Your task to perform on an android device: allow cookies in the chrome app Image 0: 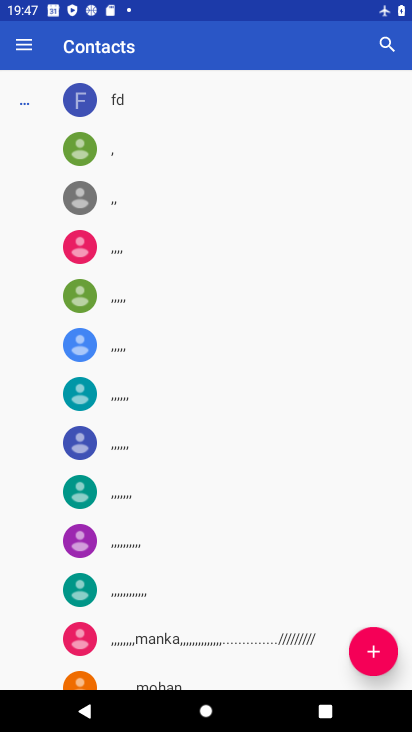
Step 0: press home button
Your task to perform on an android device: allow cookies in the chrome app Image 1: 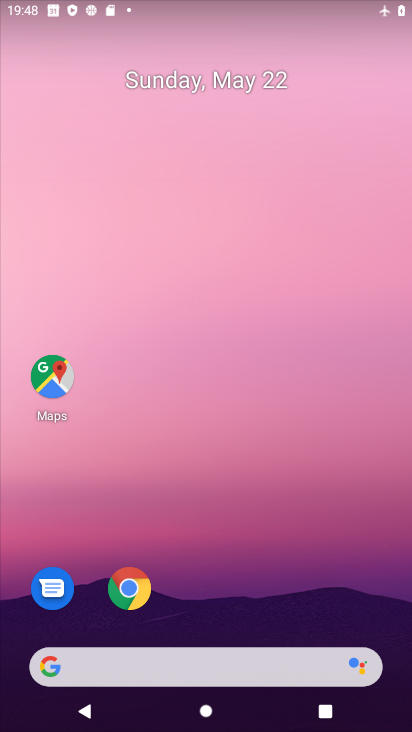
Step 1: click (133, 597)
Your task to perform on an android device: allow cookies in the chrome app Image 2: 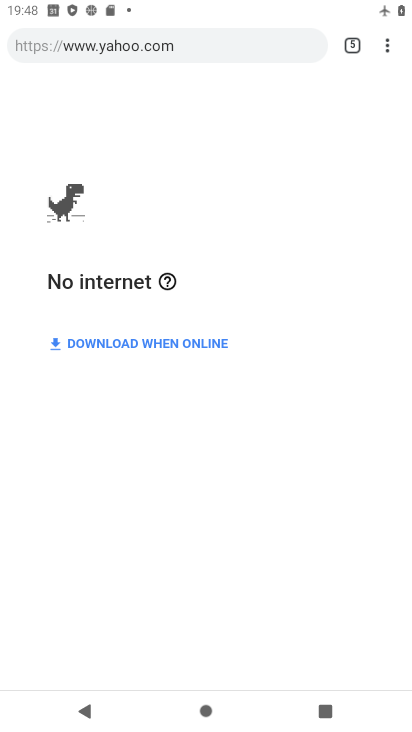
Step 2: click (387, 52)
Your task to perform on an android device: allow cookies in the chrome app Image 3: 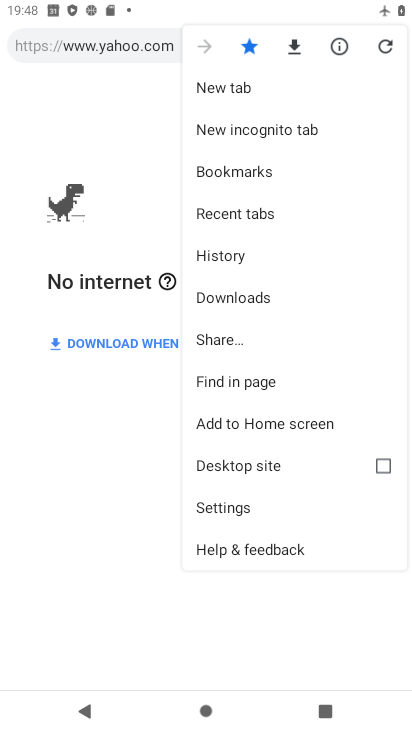
Step 3: click (218, 498)
Your task to perform on an android device: allow cookies in the chrome app Image 4: 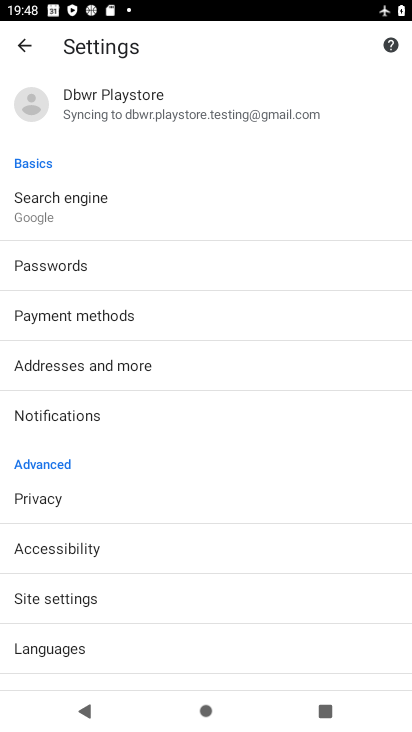
Step 4: click (60, 595)
Your task to perform on an android device: allow cookies in the chrome app Image 5: 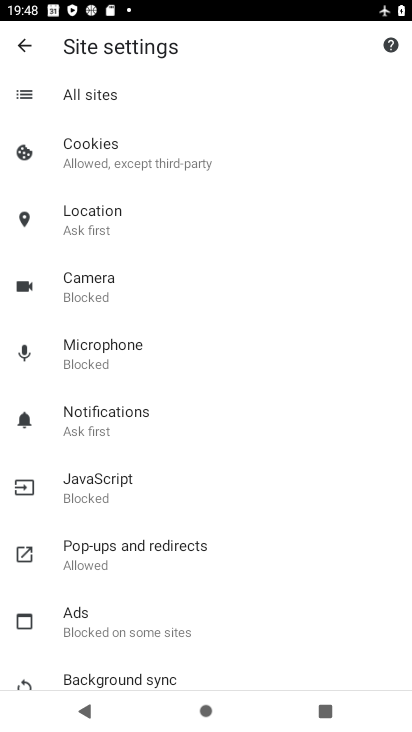
Step 5: click (88, 155)
Your task to perform on an android device: allow cookies in the chrome app Image 6: 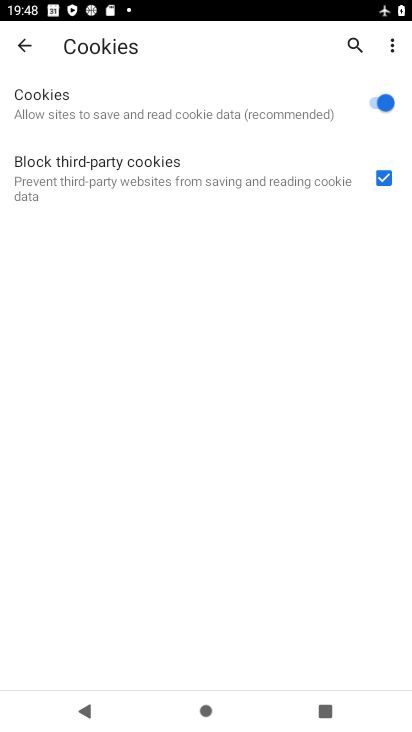
Step 6: task complete